Your task to perform on an android device: Open Chrome and go to the settings page Image 0: 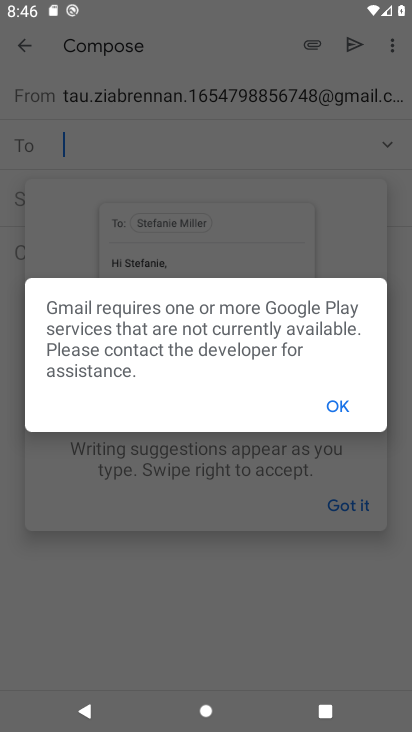
Step 0: press home button
Your task to perform on an android device: Open Chrome and go to the settings page Image 1: 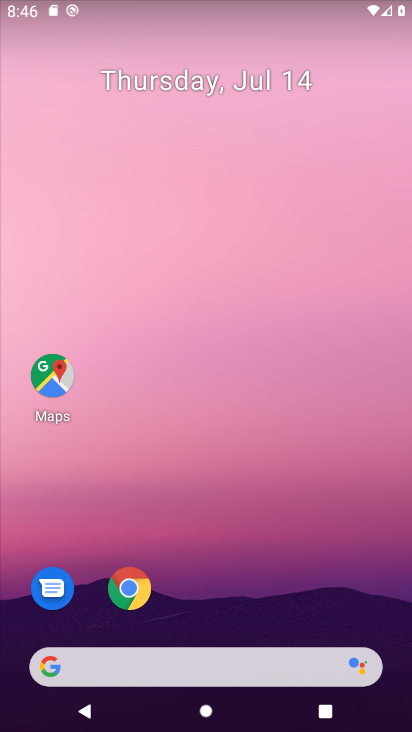
Step 1: drag from (330, 573) to (368, 74)
Your task to perform on an android device: Open Chrome and go to the settings page Image 2: 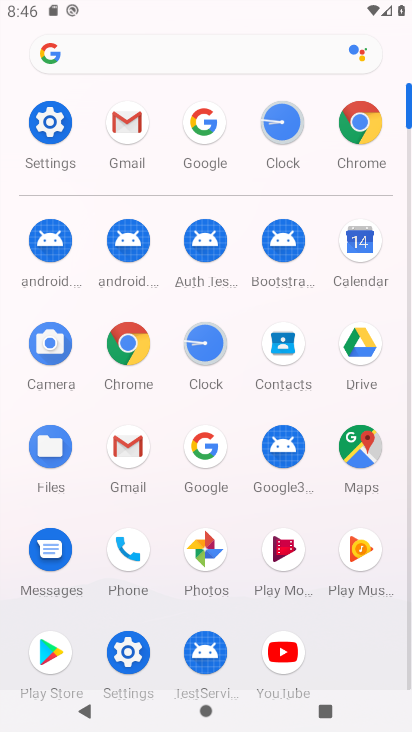
Step 2: click (139, 343)
Your task to perform on an android device: Open Chrome and go to the settings page Image 3: 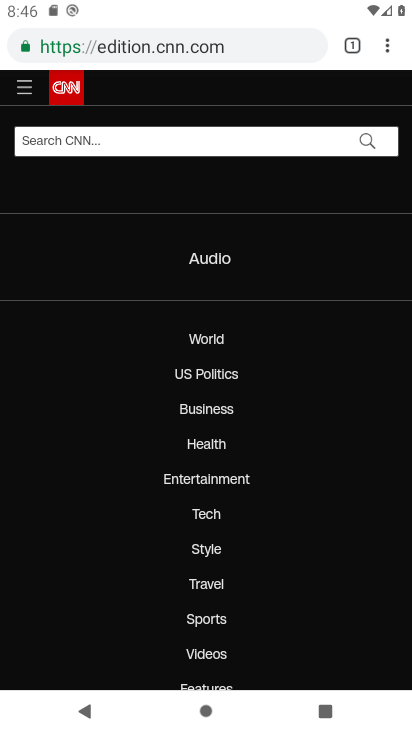
Step 3: click (389, 49)
Your task to perform on an android device: Open Chrome and go to the settings page Image 4: 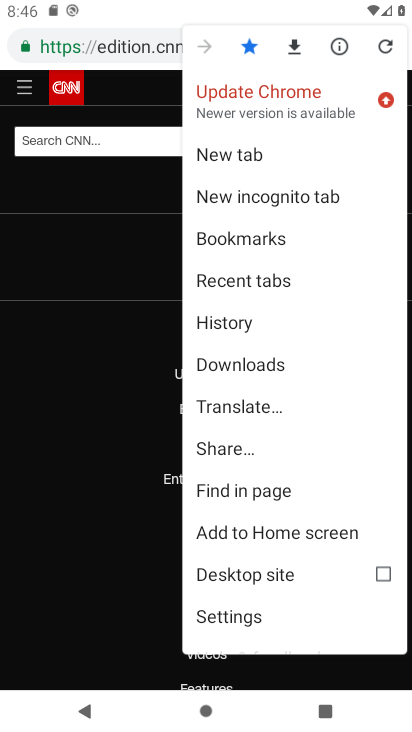
Step 4: drag from (346, 396) to (356, 226)
Your task to perform on an android device: Open Chrome and go to the settings page Image 5: 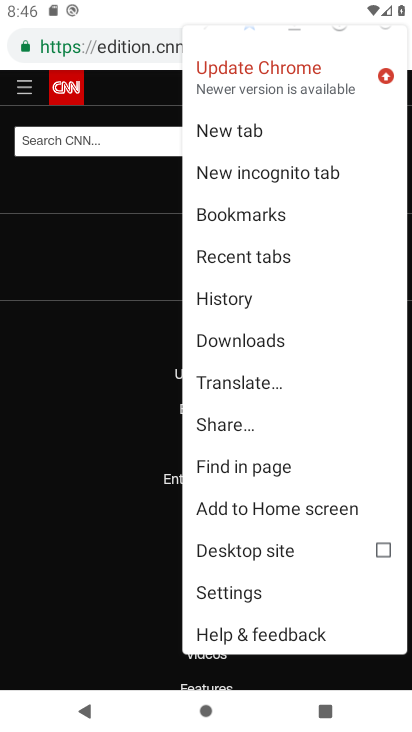
Step 5: click (249, 581)
Your task to perform on an android device: Open Chrome and go to the settings page Image 6: 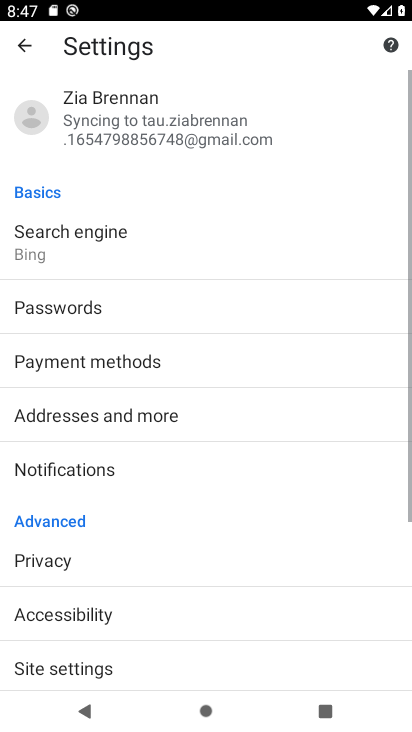
Step 6: task complete